Your task to perform on an android device: Open battery settings Image 0: 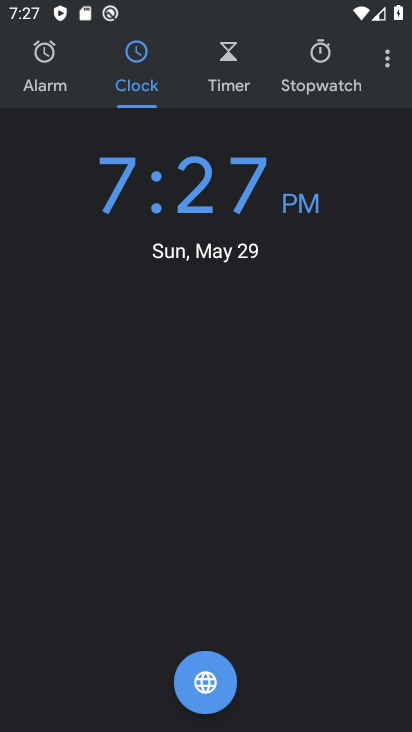
Step 0: press home button
Your task to perform on an android device: Open battery settings Image 1: 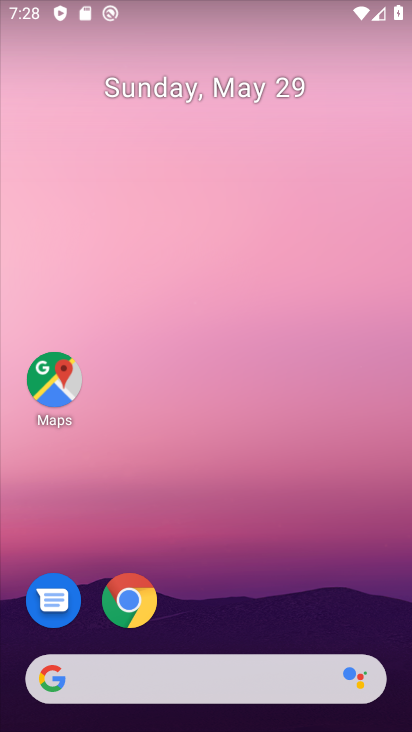
Step 1: drag from (257, 632) to (274, 80)
Your task to perform on an android device: Open battery settings Image 2: 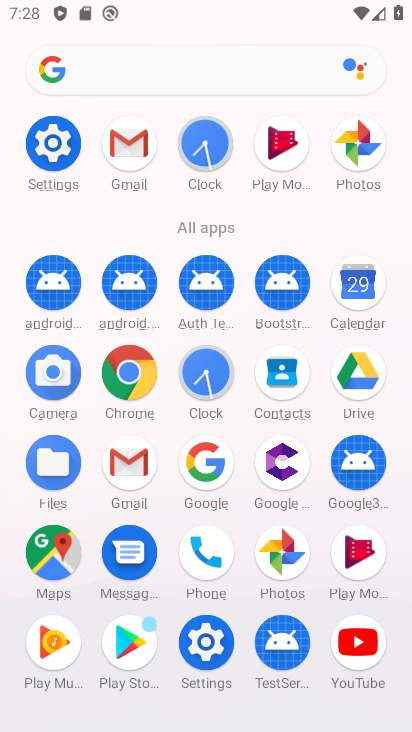
Step 2: click (52, 150)
Your task to perform on an android device: Open battery settings Image 3: 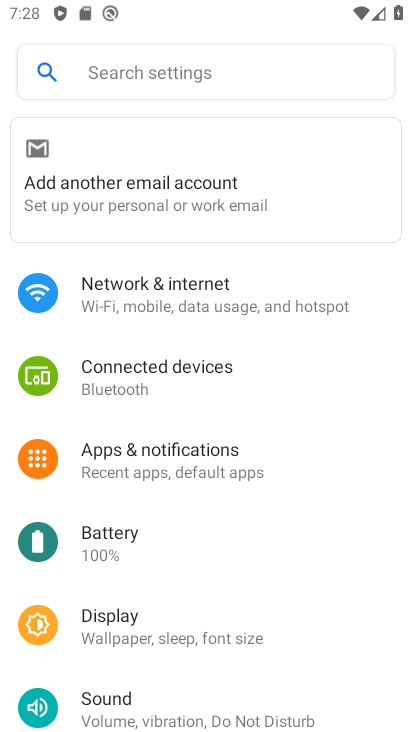
Step 3: click (120, 563)
Your task to perform on an android device: Open battery settings Image 4: 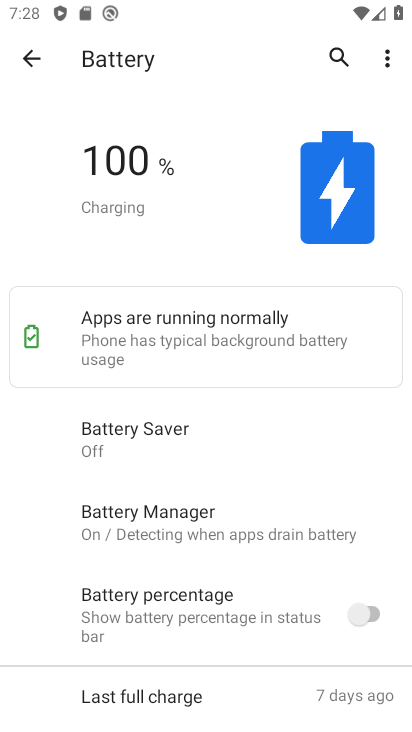
Step 4: task complete